Your task to perform on an android device: Open the calendar and show me this week's events? Image 0: 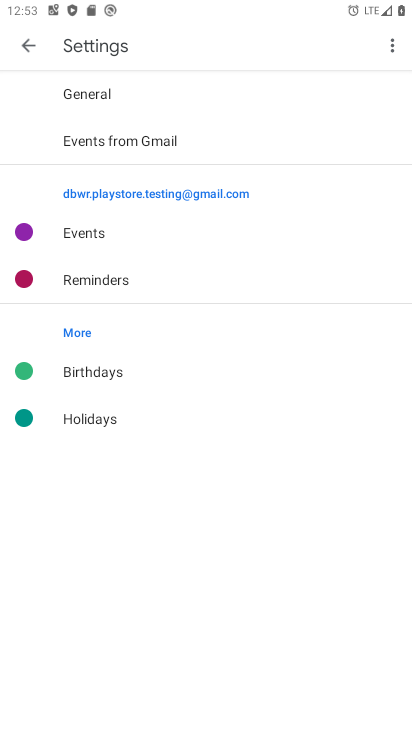
Step 0: press home button
Your task to perform on an android device: Open the calendar and show me this week's events? Image 1: 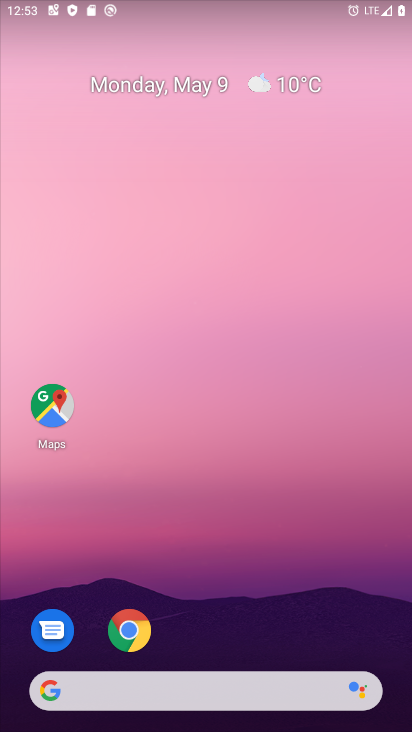
Step 1: drag from (301, 620) to (20, 43)
Your task to perform on an android device: Open the calendar and show me this week's events? Image 2: 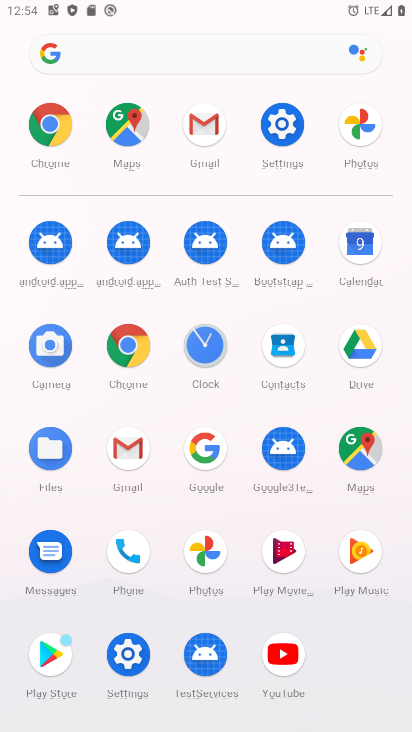
Step 2: click (361, 259)
Your task to perform on an android device: Open the calendar and show me this week's events? Image 3: 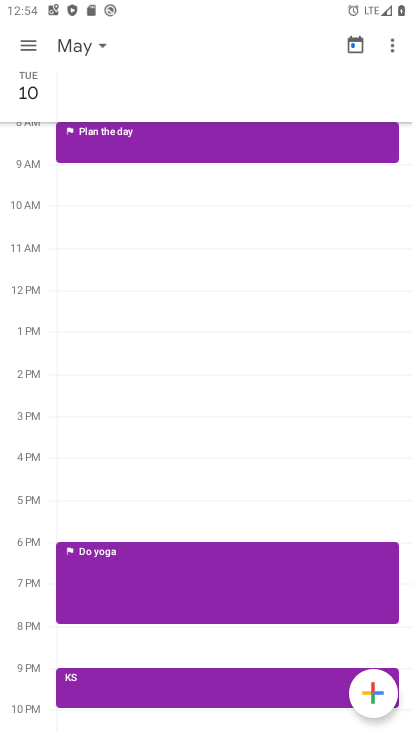
Step 3: click (35, 37)
Your task to perform on an android device: Open the calendar and show me this week's events? Image 4: 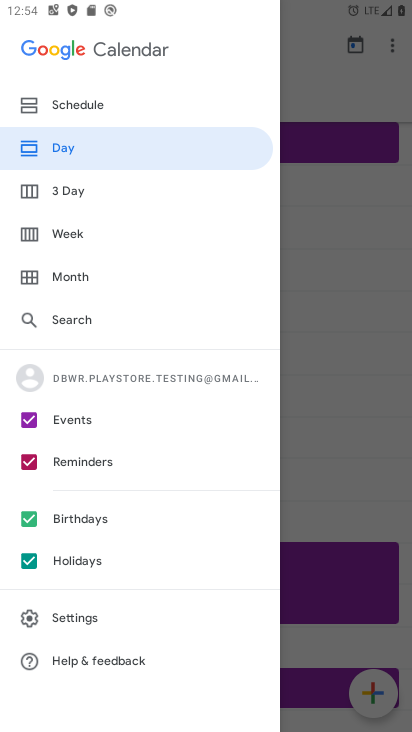
Step 4: click (84, 107)
Your task to perform on an android device: Open the calendar and show me this week's events? Image 5: 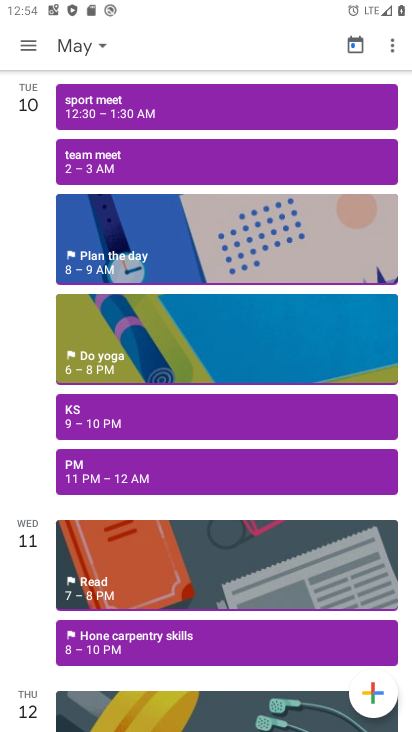
Step 5: task complete